Your task to perform on an android device: open a new tab in the chrome app Image 0: 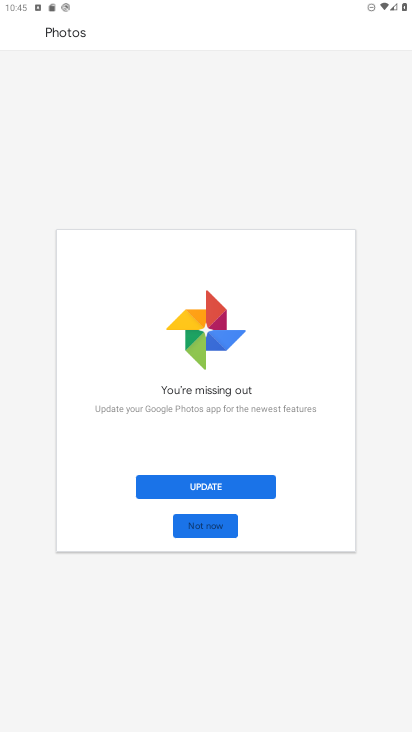
Step 0: press home button
Your task to perform on an android device: open a new tab in the chrome app Image 1: 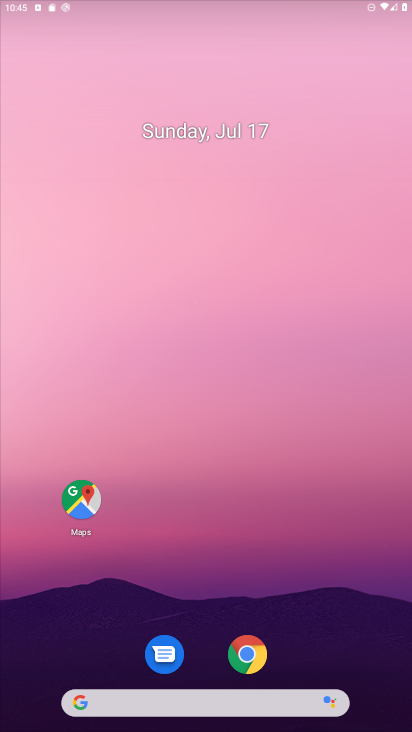
Step 1: click (239, 659)
Your task to perform on an android device: open a new tab in the chrome app Image 2: 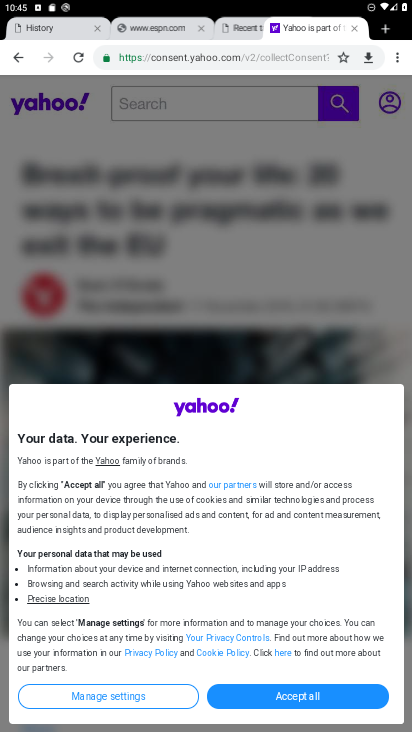
Step 2: click (266, 702)
Your task to perform on an android device: open a new tab in the chrome app Image 3: 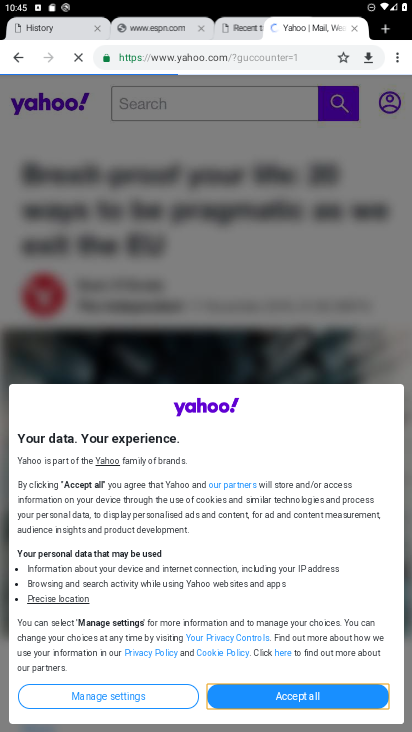
Step 3: click (281, 696)
Your task to perform on an android device: open a new tab in the chrome app Image 4: 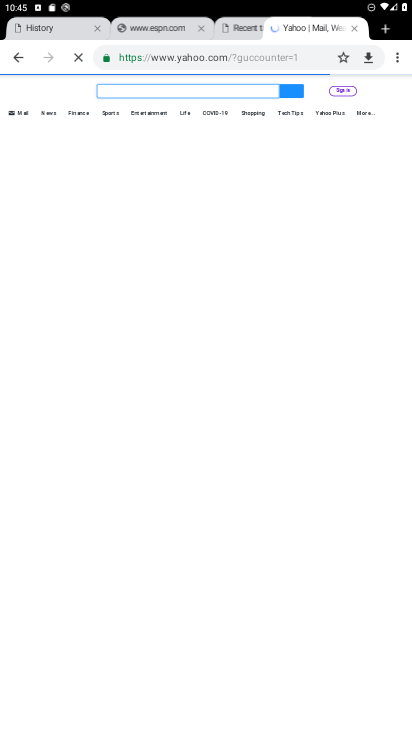
Step 4: click (385, 32)
Your task to perform on an android device: open a new tab in the chrome app Image 5: 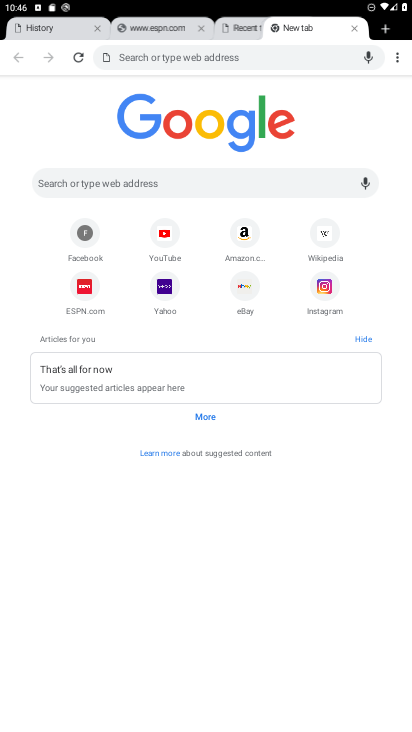
Step 5: task complete